Your task to perform on an android device: open a new tab in the chrome app Image 0: 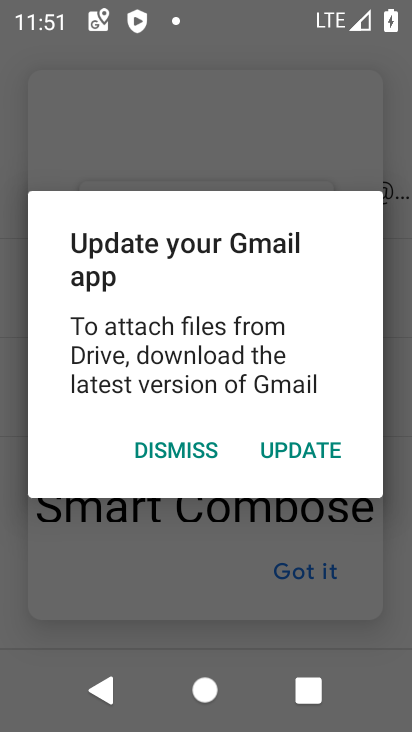
Step 0: press home button
Your task to perform on an android device: open a new tab in the chrome app Image 1: 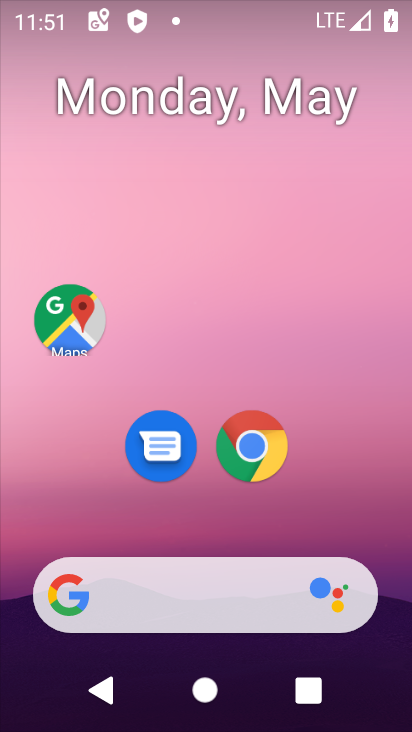
Step 1: click (257, 461)
Your task to perform on an android device: open a new tab in the chrome app Image 2: 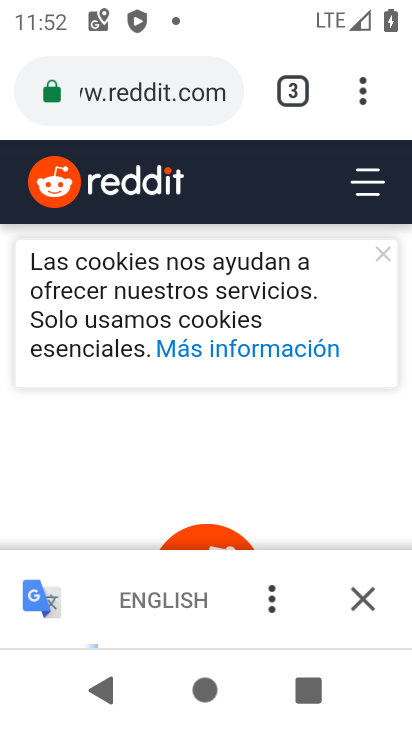
Step 2: task complete